Your task to perform on an android device: Open ESPN.com Image 0: 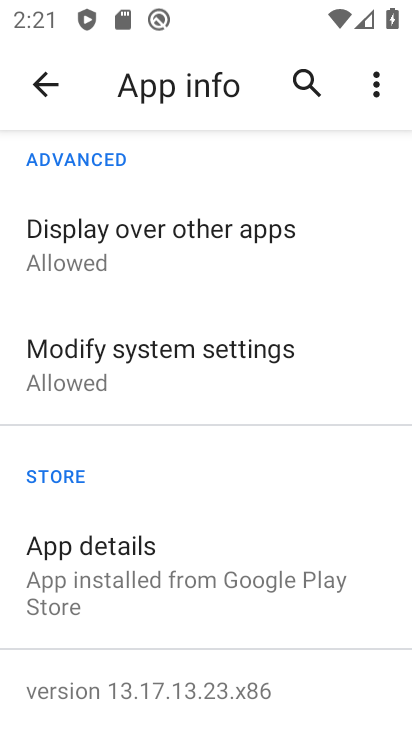
Step 0: press home button
Your task to perform on an android device: Open ESPN.com Image 1: 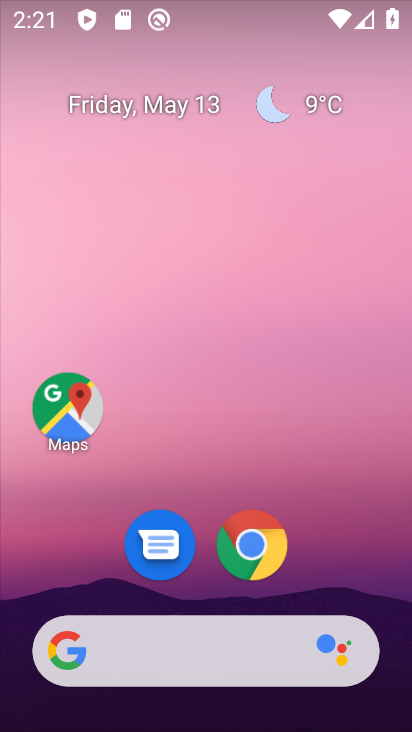
Step 1: click (259, 526)
Your task to perform on an android device: Open ESPN.com Image 2: 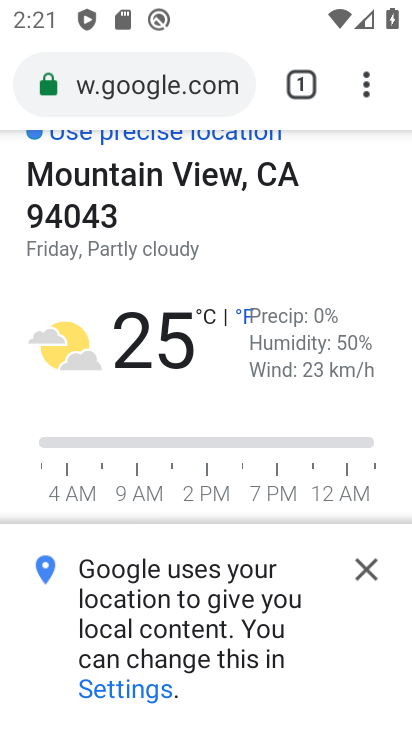
Step 2: click (202, 90)
Your task to perform on an android device: Open ESPN.com Image 3: 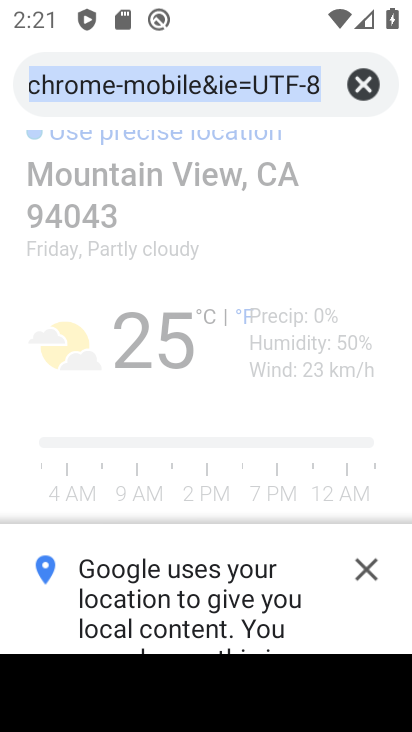
Step 3: click (366, 81)
Your task to perform on an android device: Open ESPN.com Image 4: 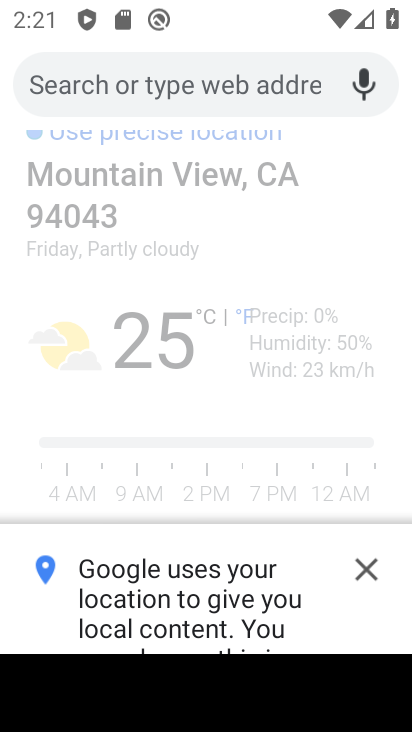
Step 4: type " ESPN.com"
Your task to perform on an android device: Open ESPN.com Image 5: 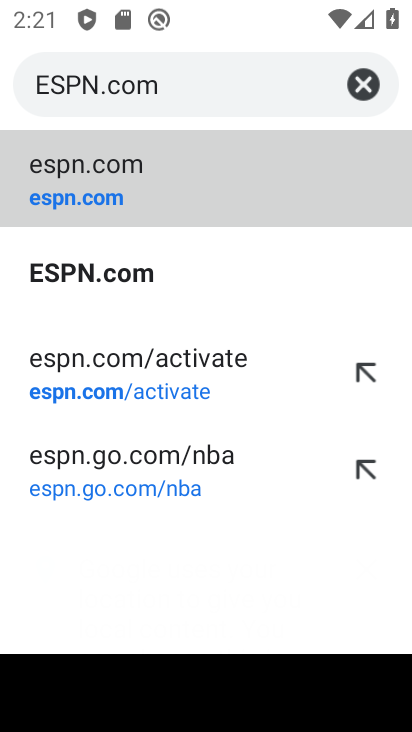
Step 5: click (53, 202)
Your task to perform on an android device: Open ESPN.com Image 6: 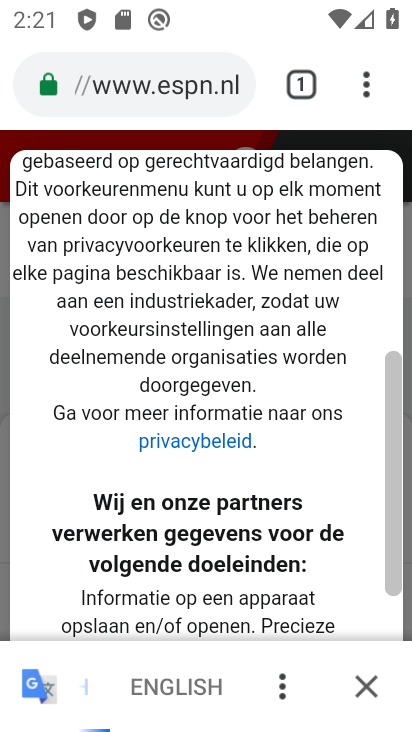
Step 6: task complete